Your task to perform on an android device: check google app version Image 0: 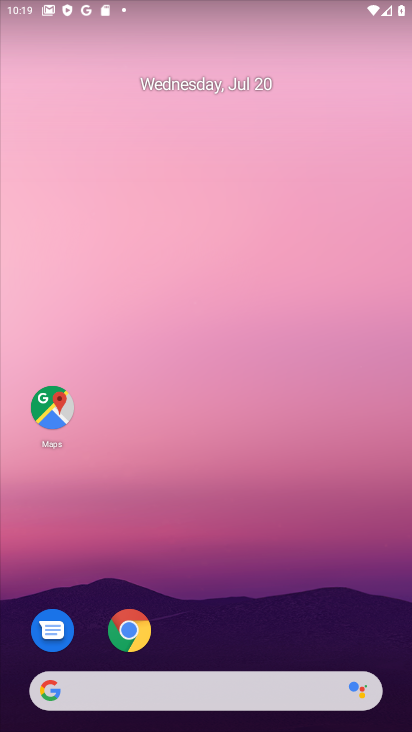
Step 0: drag from (212, 563) to (150, 204)
Your task to perform on an android device: check google app version Image 1: 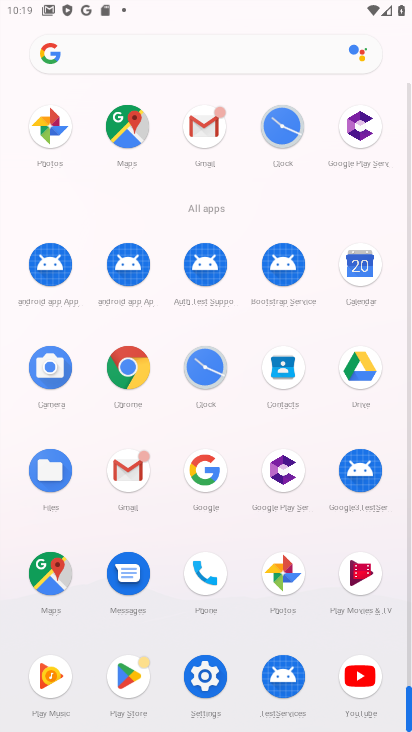
Step 1: click (204, 470)
Your task to perform on an android device: check google app version Image 2: 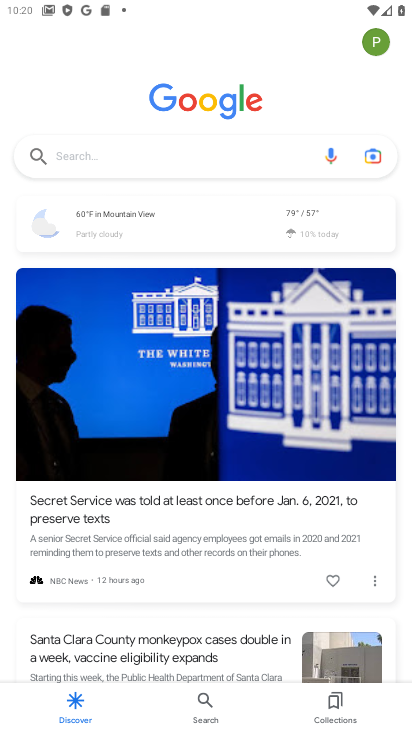
Step 2: drag from (251, 577) to (313, 102)
Your task to perform on an android device: check google app version Image 3: 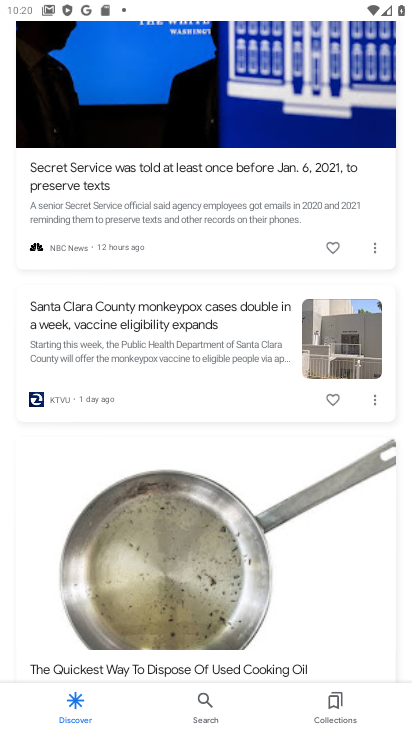
Step 3: drag from (310, 151) to (399, 506)
Your task to perform on an android device: check google app version Image 4: 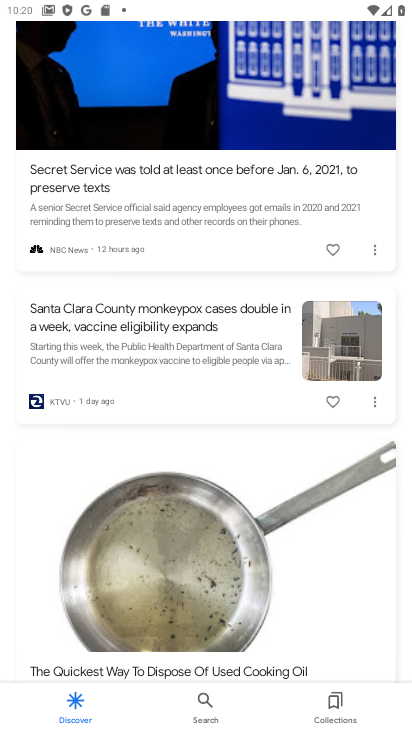
Step 4: drag from (312, 241) to (409, 37)
Your task to perform on an android device: check google app version Image 5: 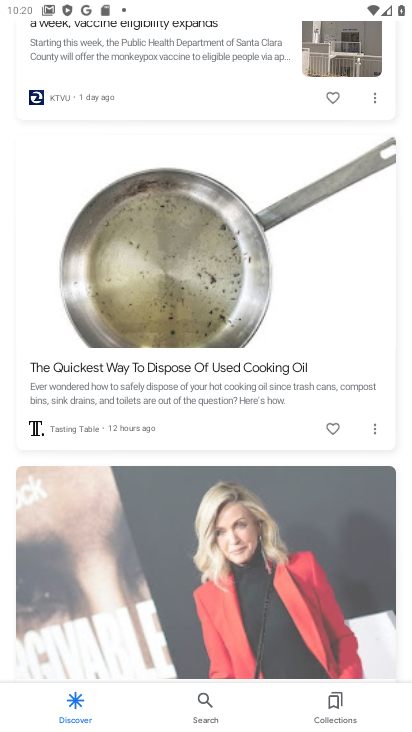
Step 5: drag from (278, 147) to (358, 697)
Your task to perform on an android device: check google app version Image 6: 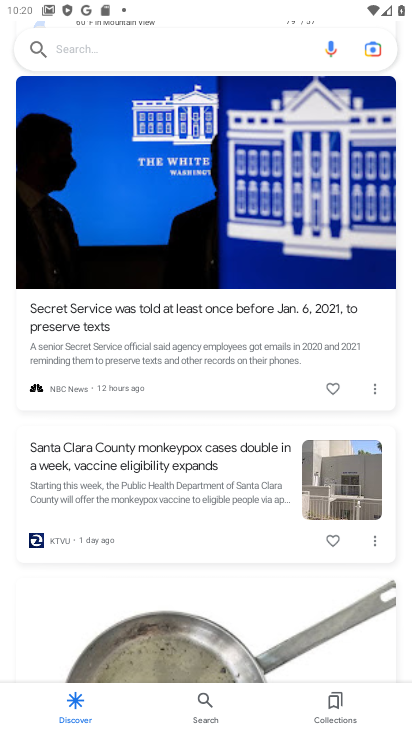
Step 6: drag from (121, 145) to (289, 716)
Your task to perform on an android device: check google app version Image 7: 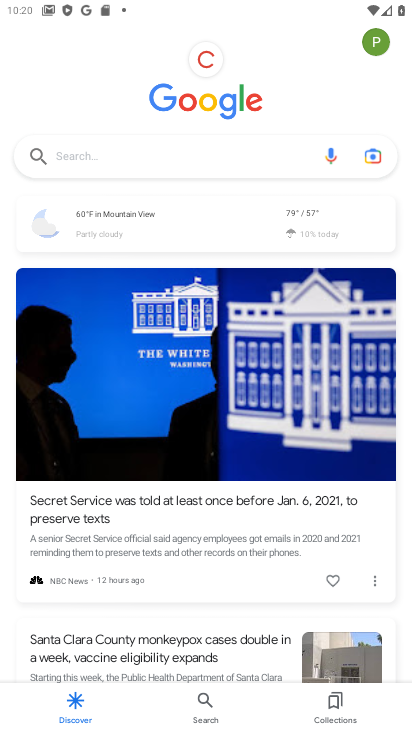
Step 7: click (381, 39)
Your task to perform on an android device: check google app version Image 8: 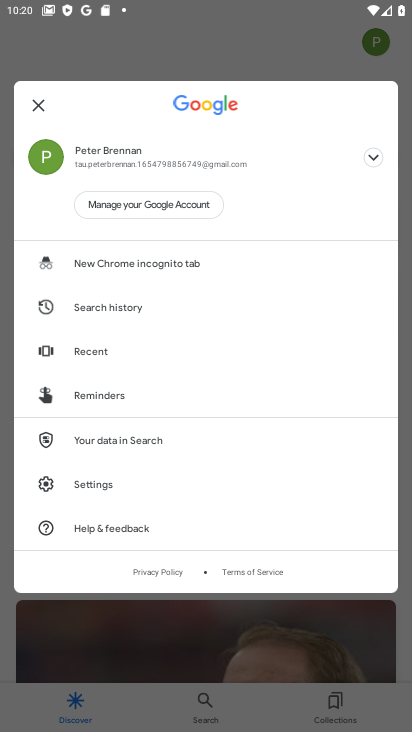
Step 8: click (95, 483)
Your task to perform on an android device: check google app version Image 9: 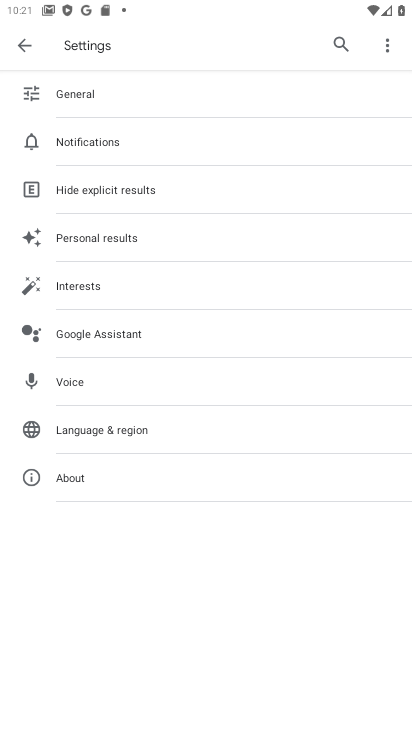
Step 9: click (92, 474)
Your task to perform on an android device: check google app version Image 10: 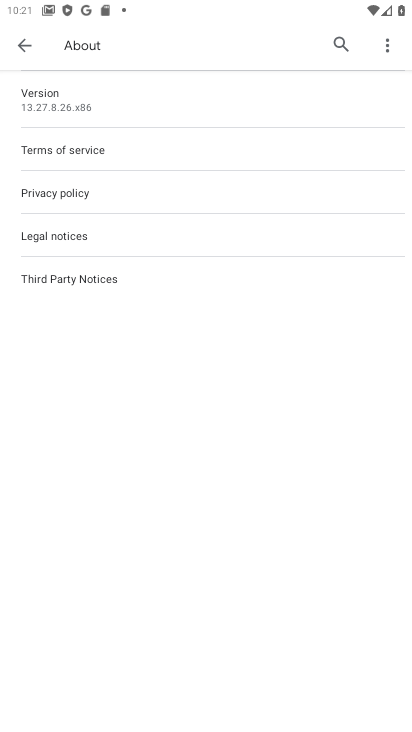
Step 10: click (90, 88)
Your task to perform on an android device: check google app version Image 11: 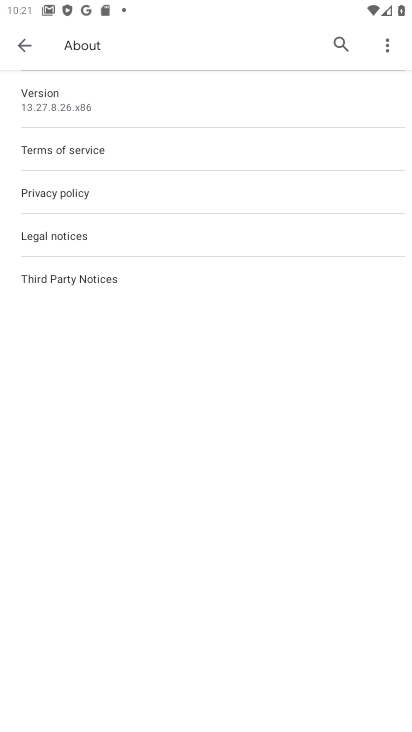
Step 11: task complete